Your task to perform on an android device: open sync settings in chrome Image 0: 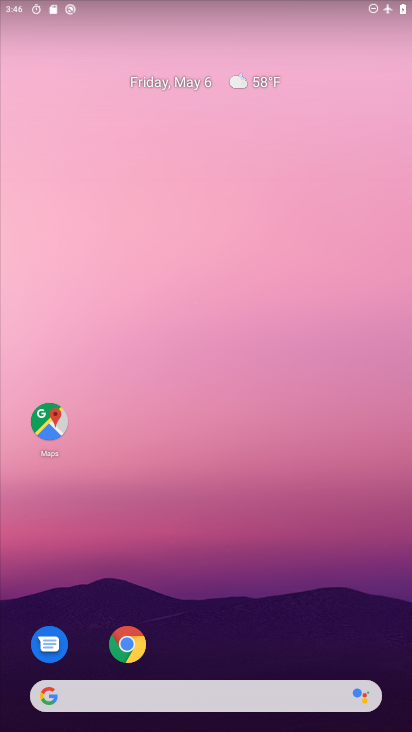
Step 0: click (132, 644)
Your task to perform on an android device: open sync settings in chrome Image 1: 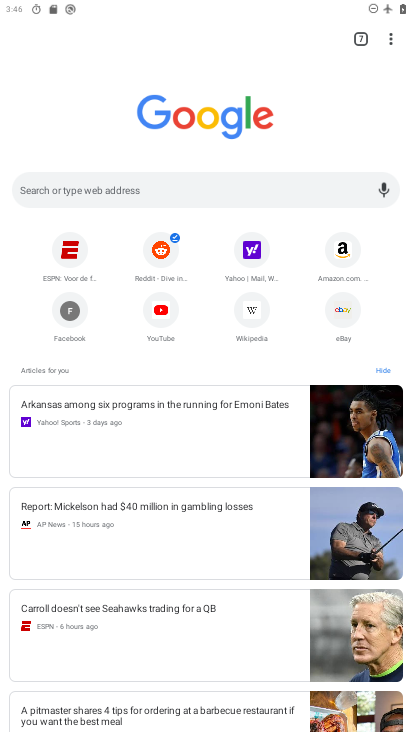
Step 1: drag from (388, 40) to (280, 323)
Your task to perform on an android device: open sync settings in chrome Image 2: 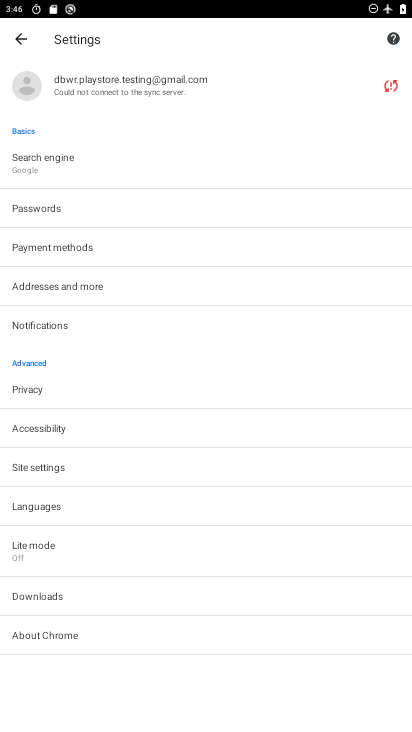
Step 2: click (59, 463)
Your task to perform on an android device: open sync settings in chrome Image 3: 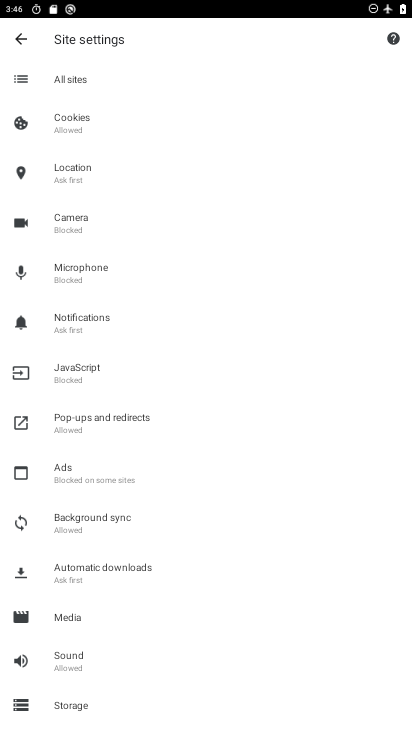
Step 3: click (79, 522)
Your task to perform on an android device: open sync settings in chrome Image 4: 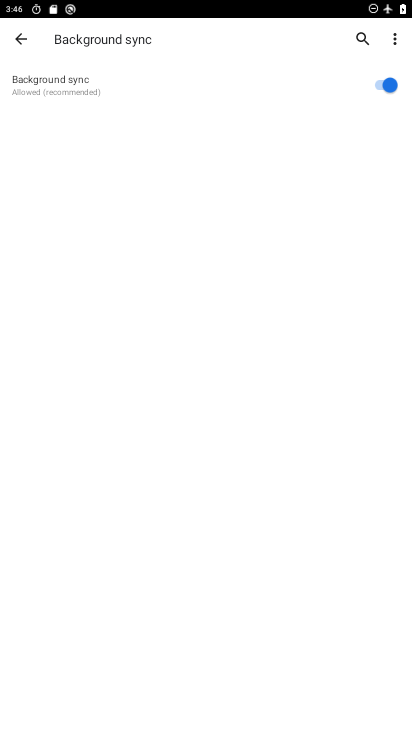
Step 4: task complete